Your task to perform on an android device: Search for razer thresher on target, select the first entry, add it to the cart, then select checkout. Image 0: 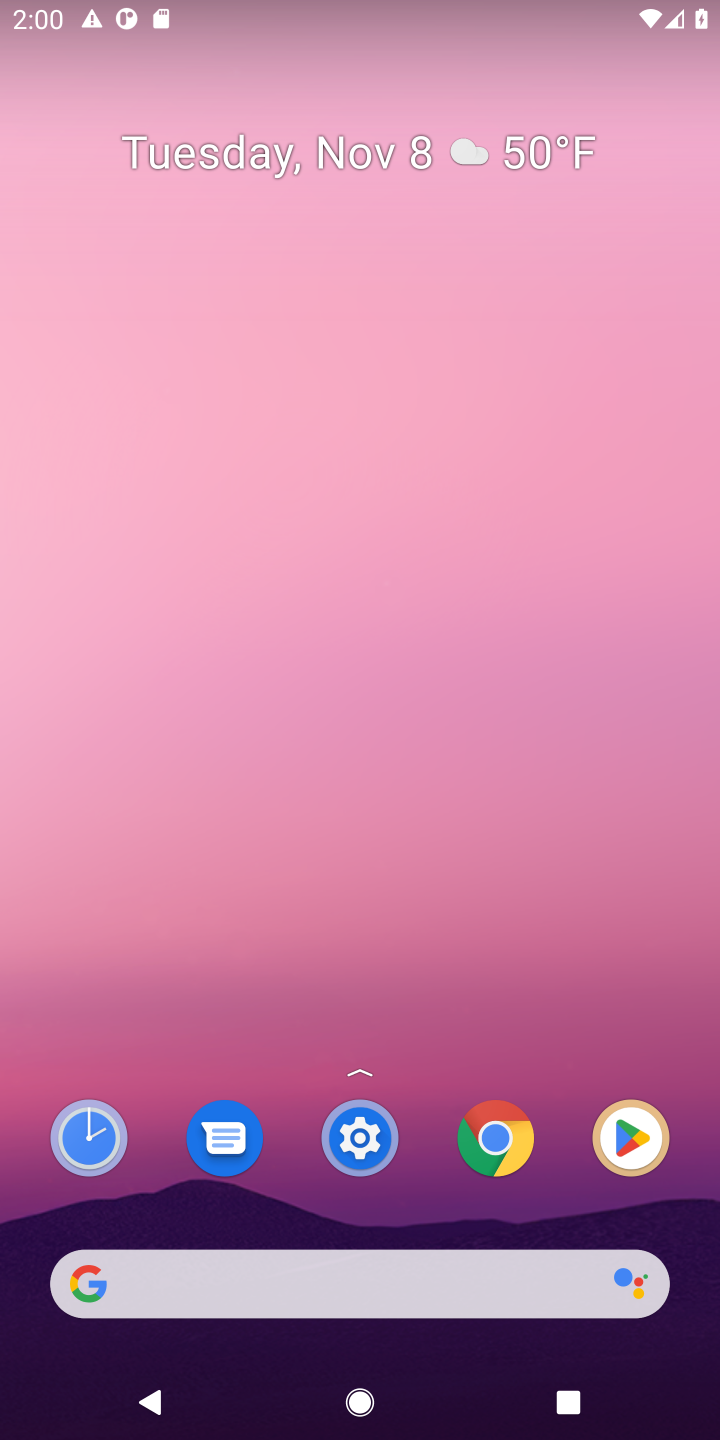
Step 0: click (360, 1289)
Your task to perform on an android device: Search for razer thresher on target, select the first entry, add it to the cart, then select checkout. Image 1: 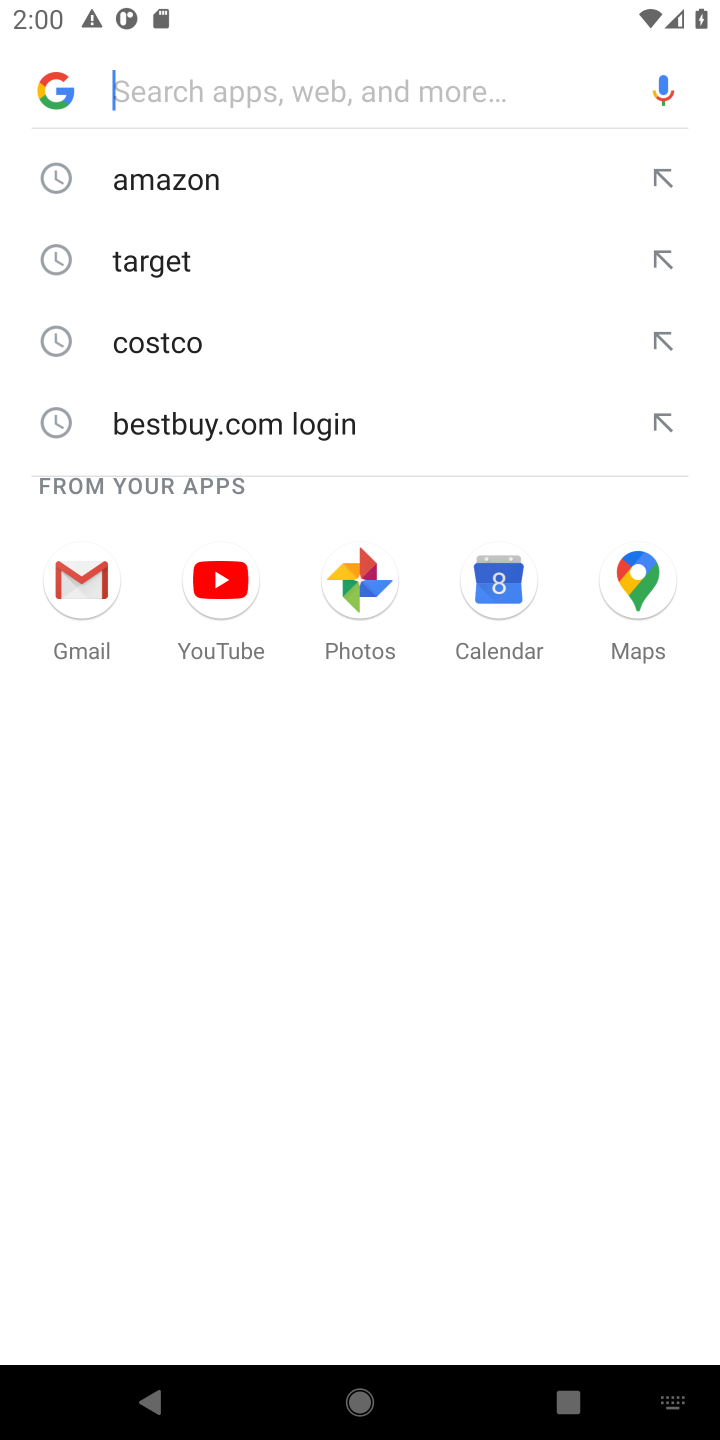
Step 1: type "target.com"
Your task to perform on an android device: Search for razer thresher on target, select the first entry, add it to the cart, then select checkout. Image 2: 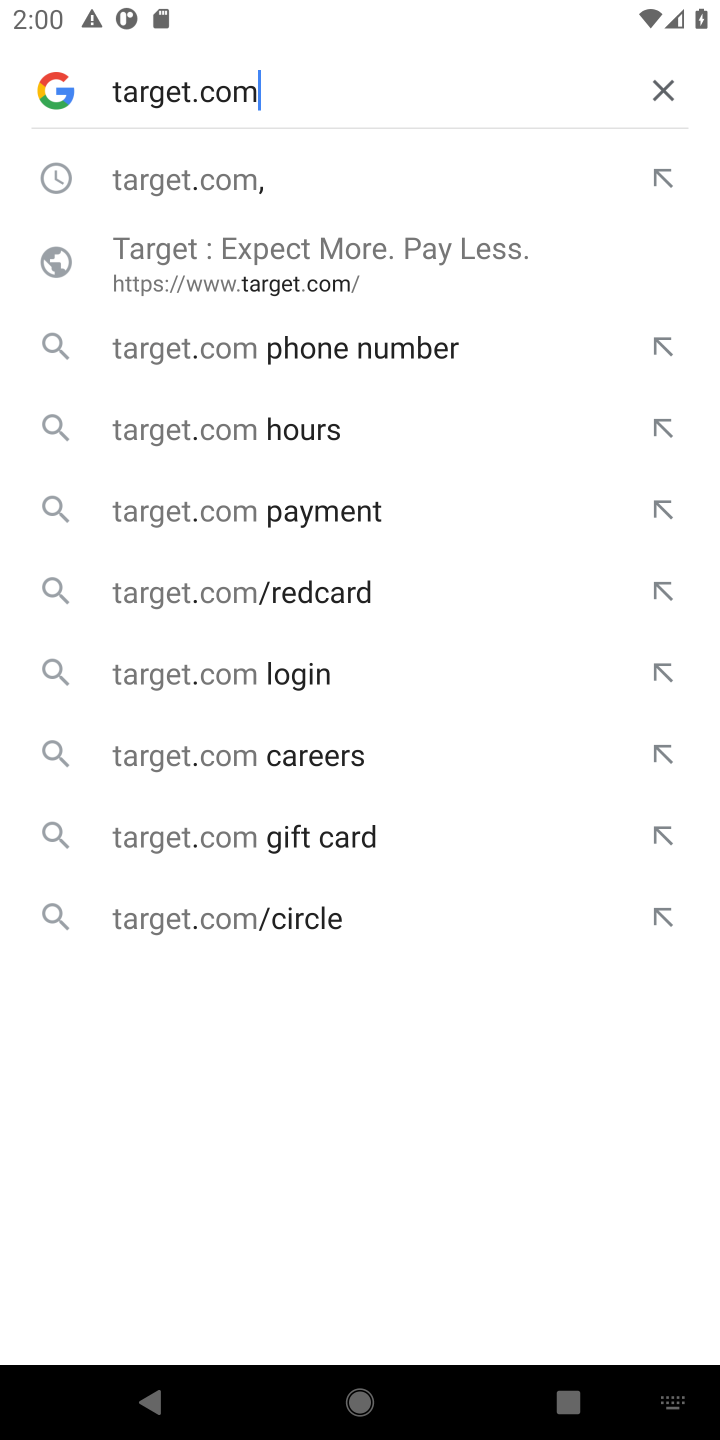
Step 2: click (348, 269)
Your task to perform on an android device: Search for razer thresher on target, select the first entry, add it to the cart, then select checkout. Image 3: 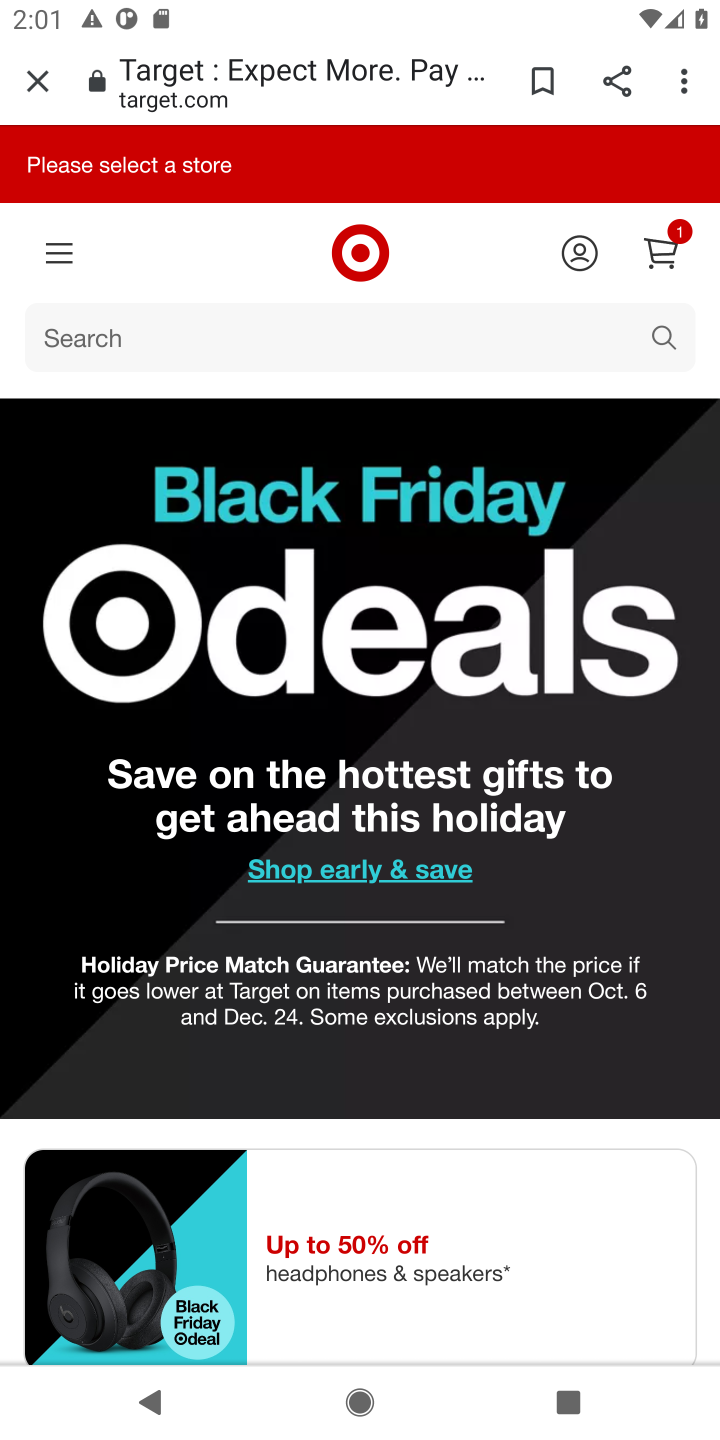
Step 3: task complete